Your task to perform on an android device: toggle sleep mode Image 0: 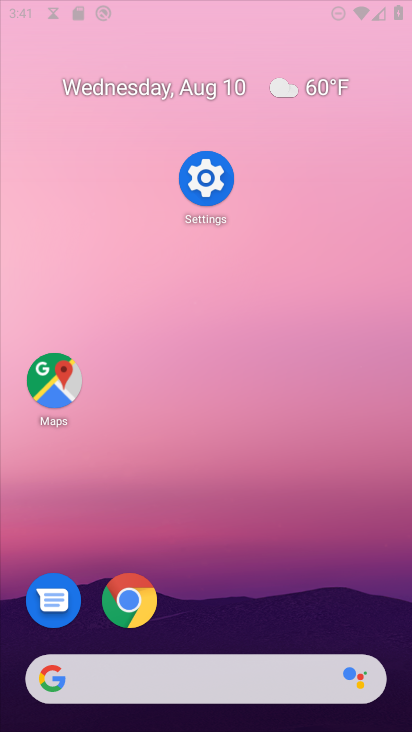
Step 0: press home button
Your task to perform on an android device: toggle sleep mode Image 1: 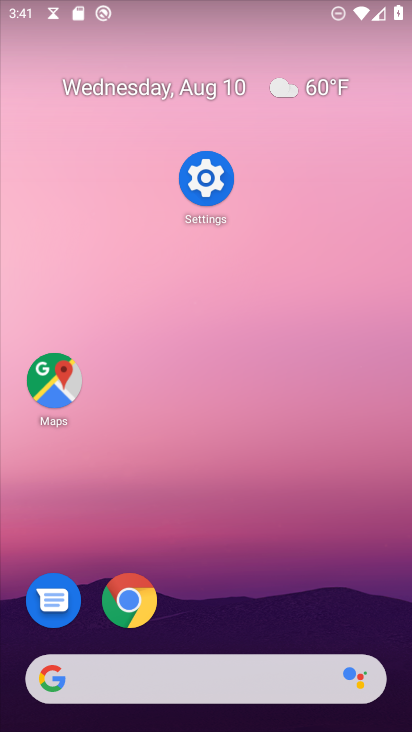
Step 1: drag from (227, 525) to (223, 10)
Your task to perform on an android device: toggle sleep mode Image 2: 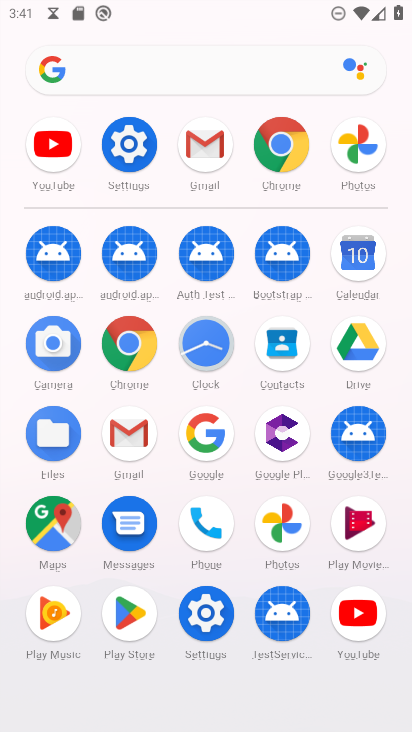
Step 2: click (122, 133)
Your task to perform on an android device: toggle sleep mode Image 3: 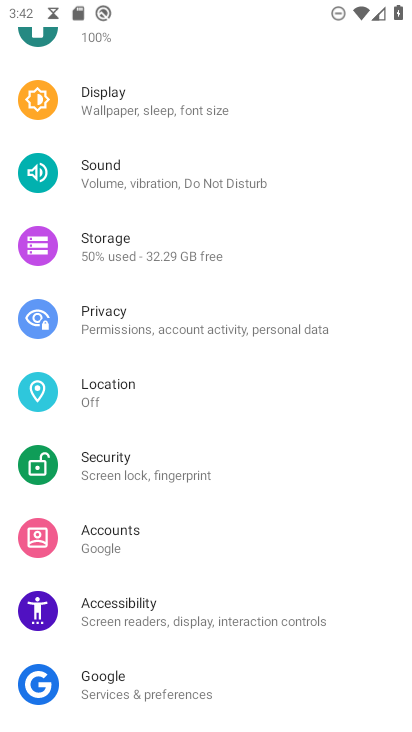
Step 3: click (107, 90)
Your task to perform on an android device: toggle sleep mode Image 4: 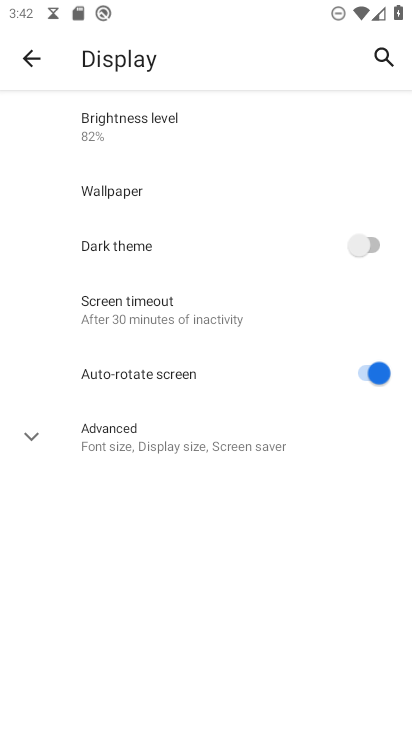
Step 4: task complete